Your task to perform on an android device: set the timer Image 0: 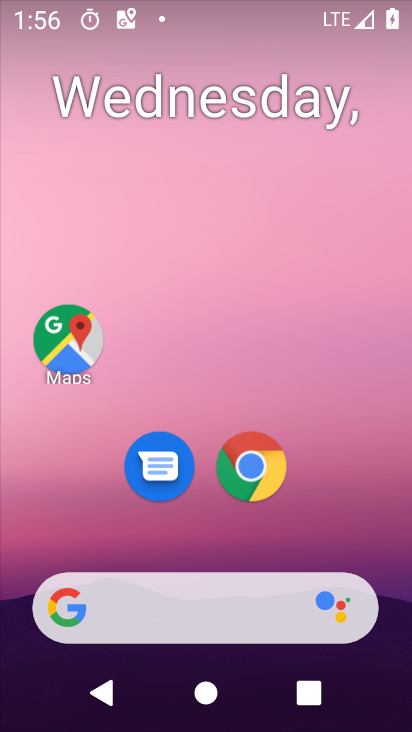
Step 0: drag from (330, 491) to (300, 364)
Your task to perform on an android device: set the timer Image 1: 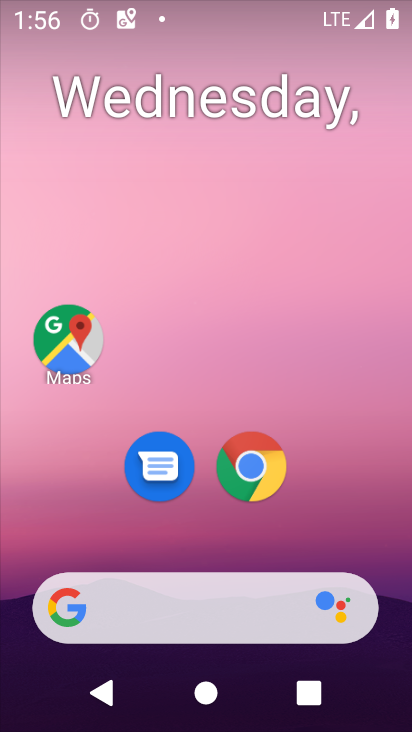
Step 1: drag from (293, 513) to (296, 163)
Your task to perform on an android device: set the timer Image 2: 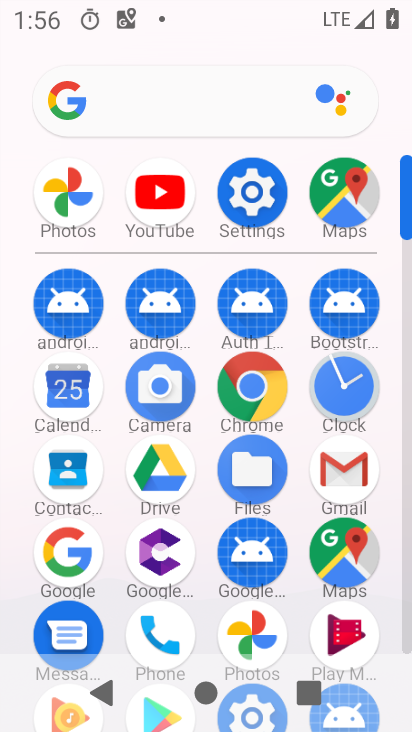
Step 2: click (358, 391)
Your task to perform on an android device: set the timer Image 3: 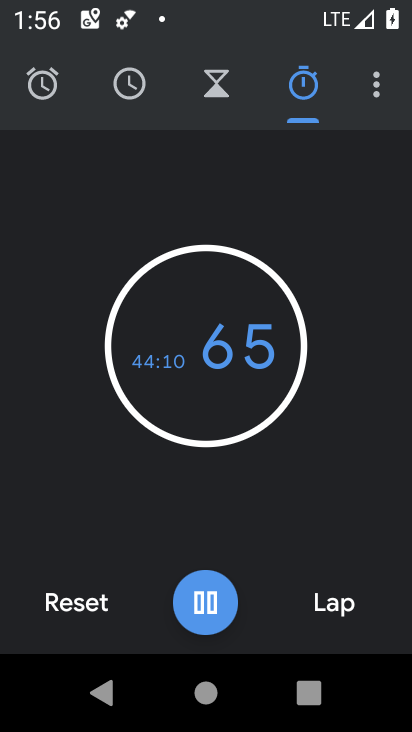
Step 3: click (225, 92)
Your task to perform on an android device: set the timer Image 4: 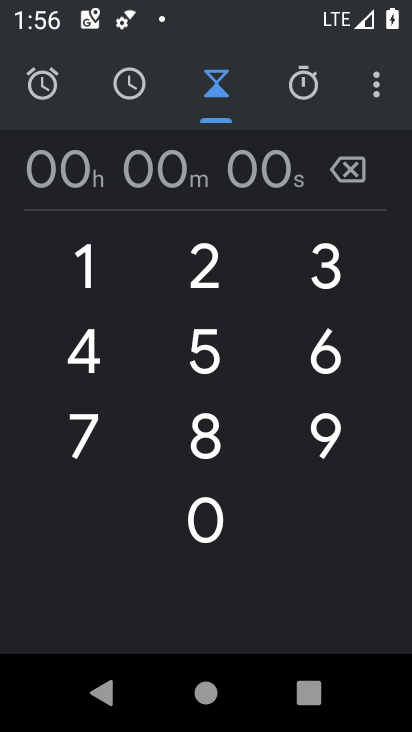
Step 4: task complete